Your task to perform on an android device: Open location settings Image 0: 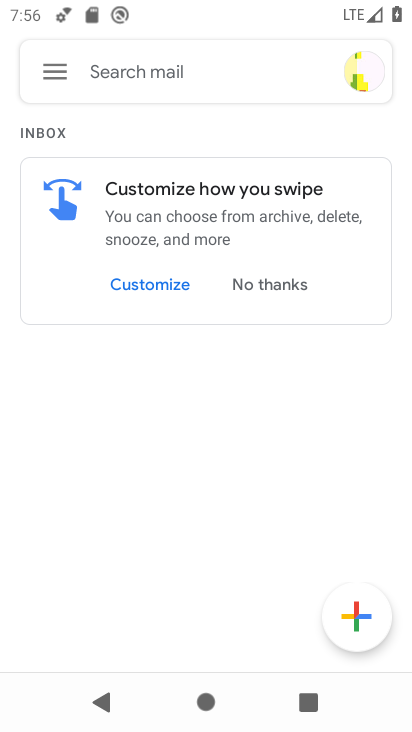
Step 0: press home button
Your task to perform on an android device: Open location settings Image 1: 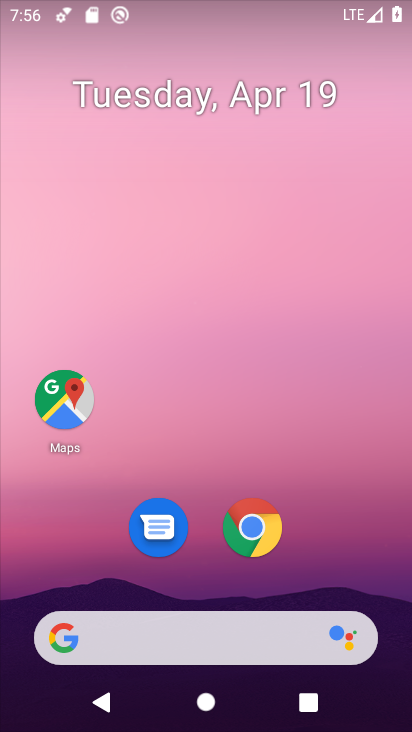
Step 1: drag from (342, 552) to (358, 117)
Your task to perform on an android device: Open location settings Image 2: 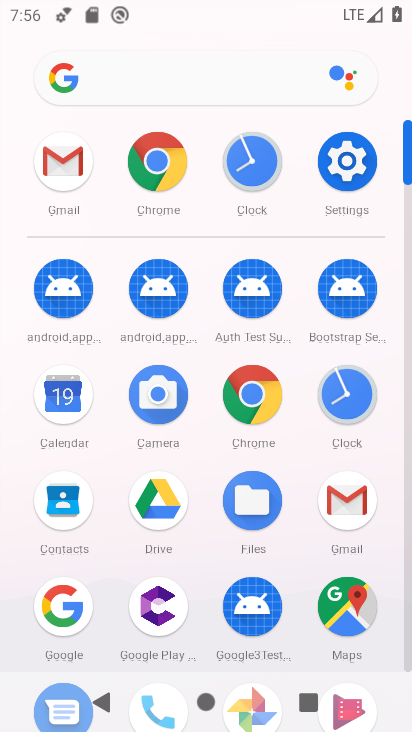
Step 2: click (356, 154)
Your task to perform on an android device: Open location settings Image 3: 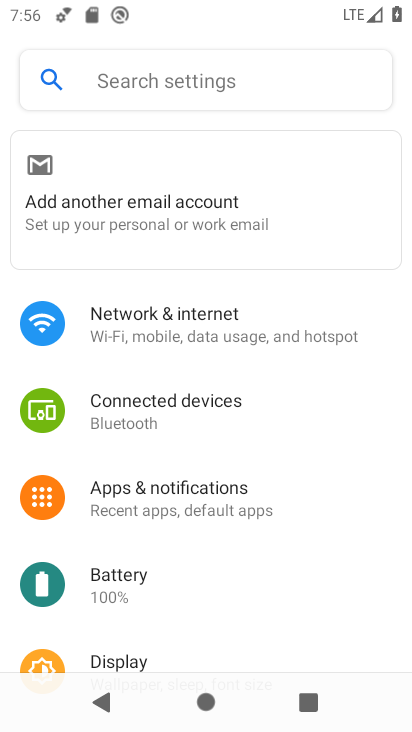
Step 3: drag from (273, 573) to (304, 41)
Your task to perform on an android device: Open location settings Image 4: 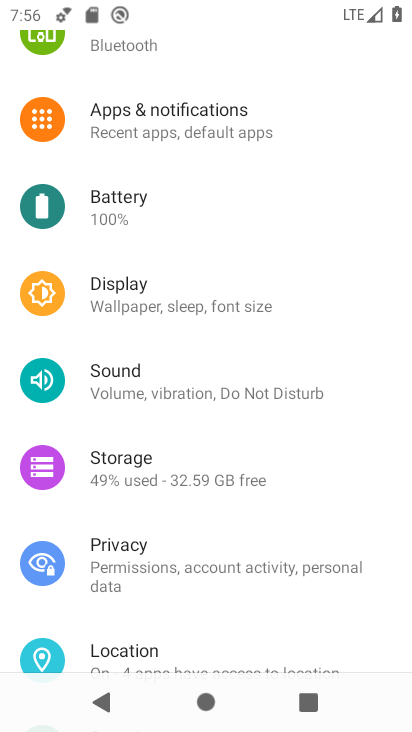
Step 4: drag from (330, 570) to (300, 102)
Your task to perform on an android device: Open location settings Image 5: 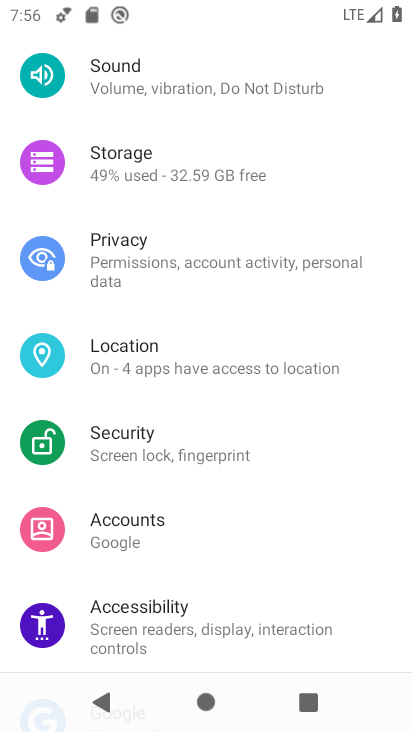
Step 5: drag from (358, 550) to (343, 76)
Your task to perform on an android device: Open location settings Image 6: 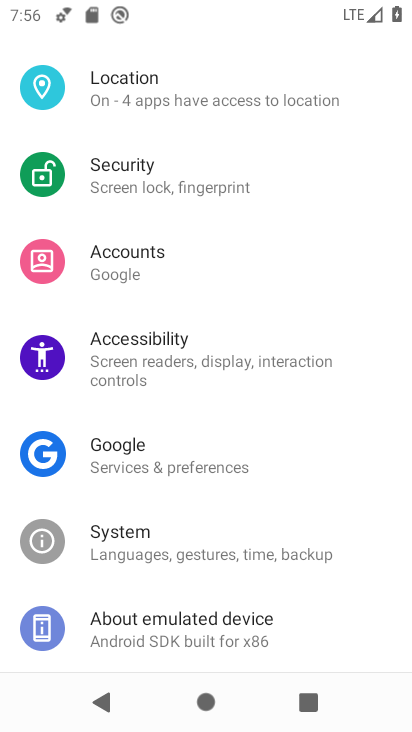
Step 6: click (186, 91)
Your task to perform on an android device: Open location settings Image 7: 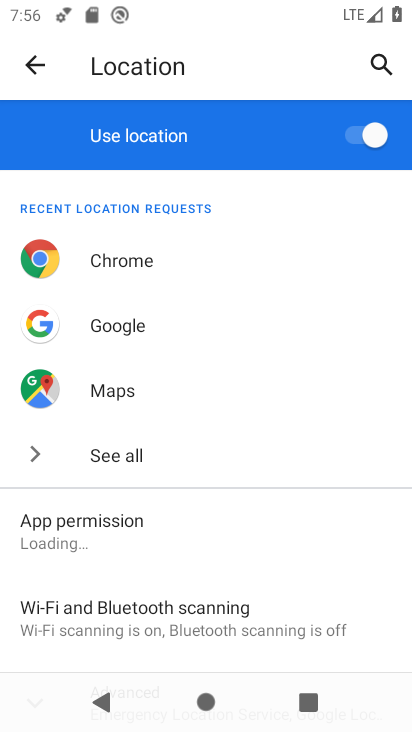
Step 7: drag from (330, 537) to (239, 141)
Your task to perform on an android device: Open location settings Image 8: 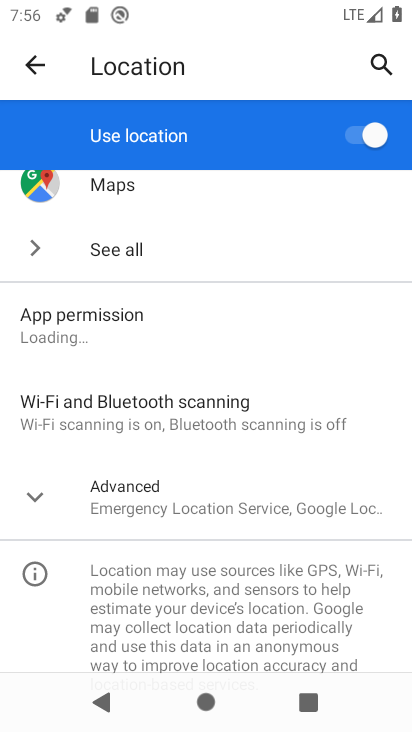
Step 8: click (296, 506)
Your task to perform on an android device: Open location settings Image 9: 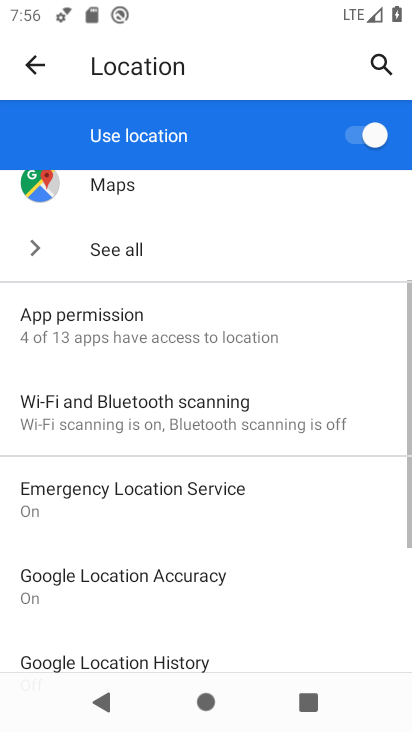
Step 9: task complete